Your task to perform on an android device: see tabs open on other devices in the chrome app Image 0: 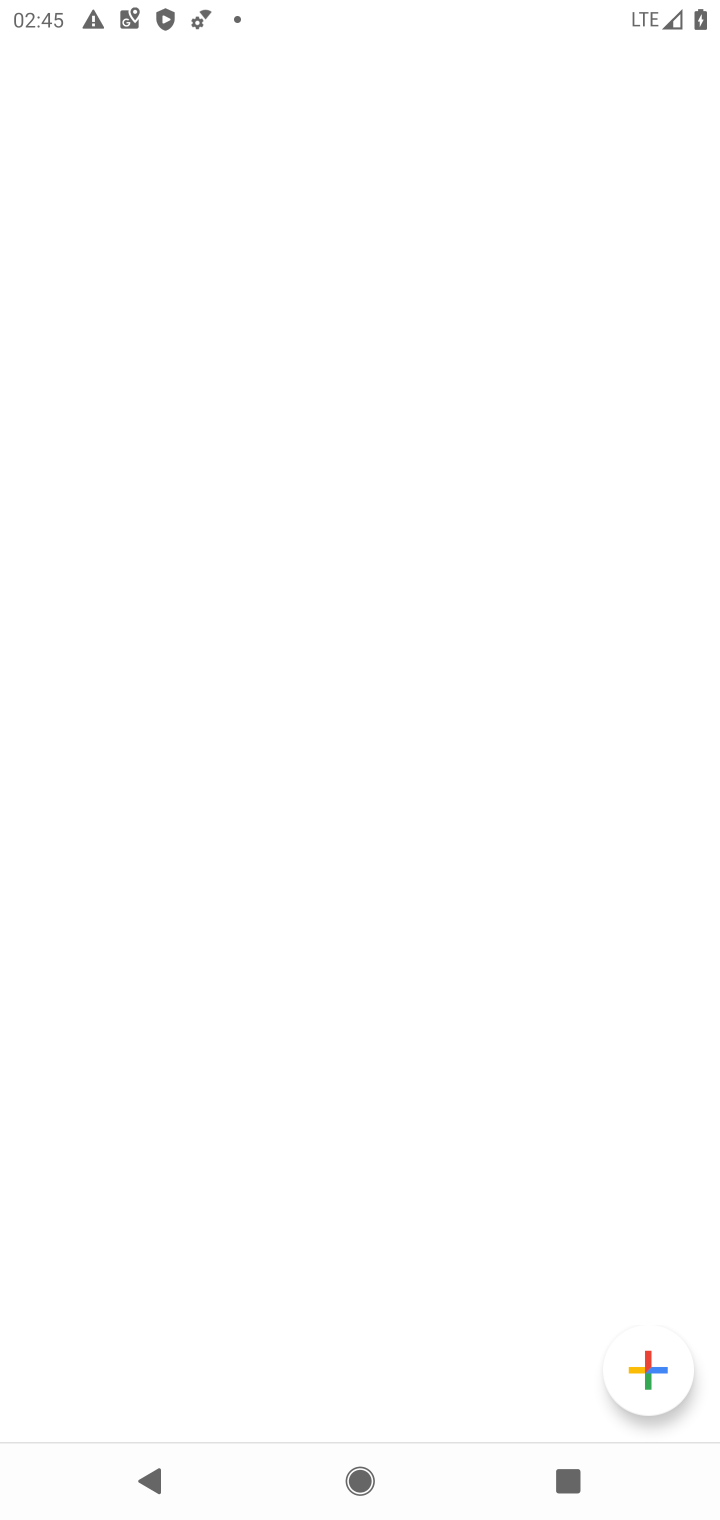
Step 0: press home button
Your task to perform on an android device: see tabs open on other devices in the chrome app Image 1: 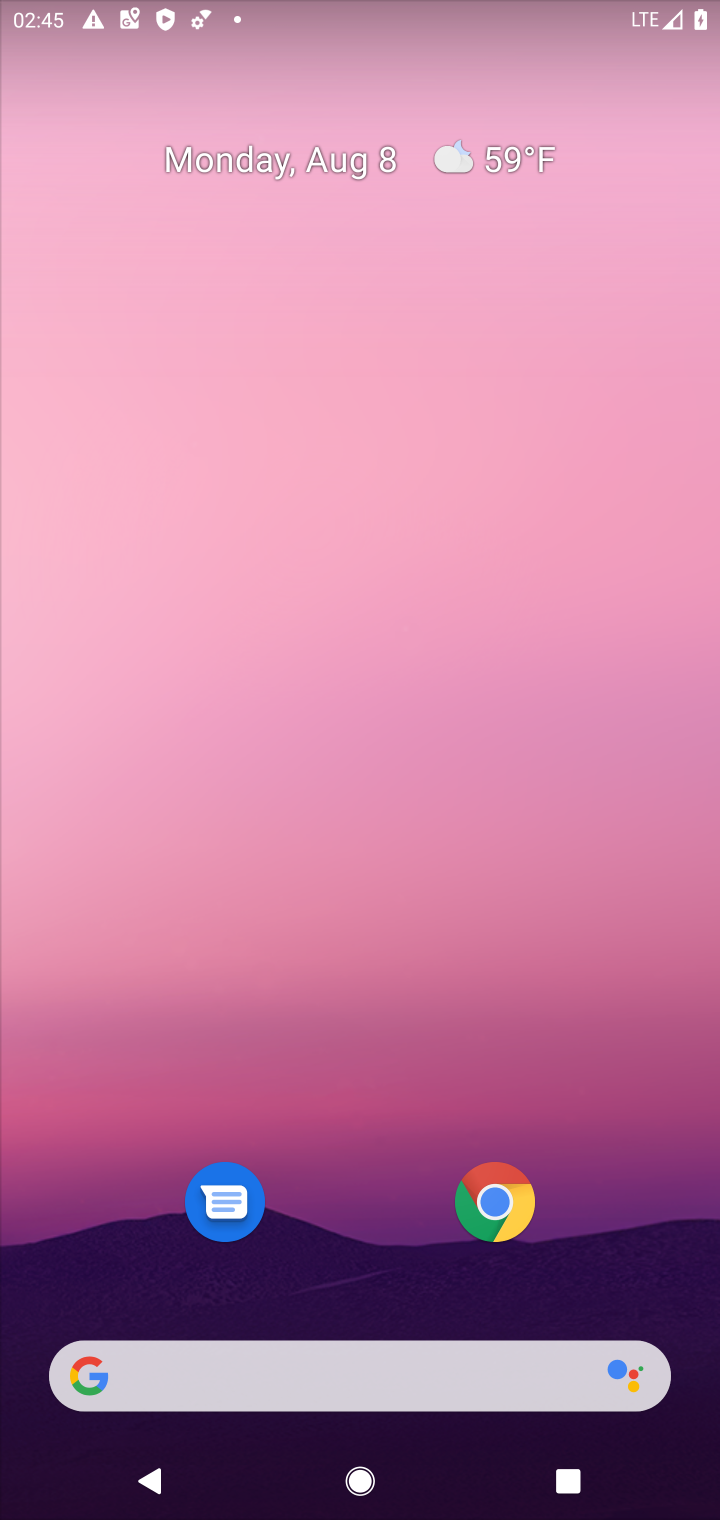
Step 1: click (505, 1197)
Your task to perform on an android device: see tabs open on other devices in the chrome app Image 2: 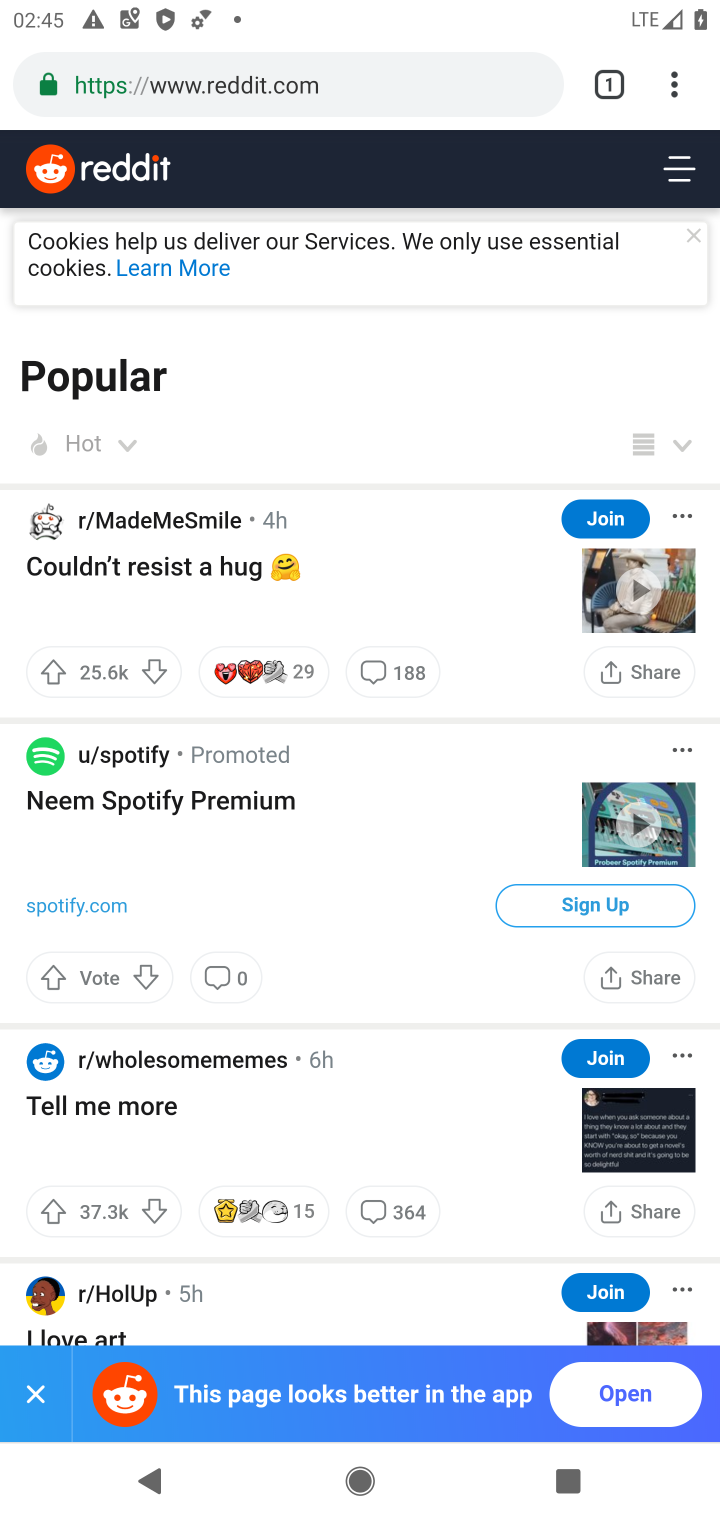
Step 2: click (676, 84)
Your task to perform on an android device: see tabs open on other devices in the chrome app Image 3: 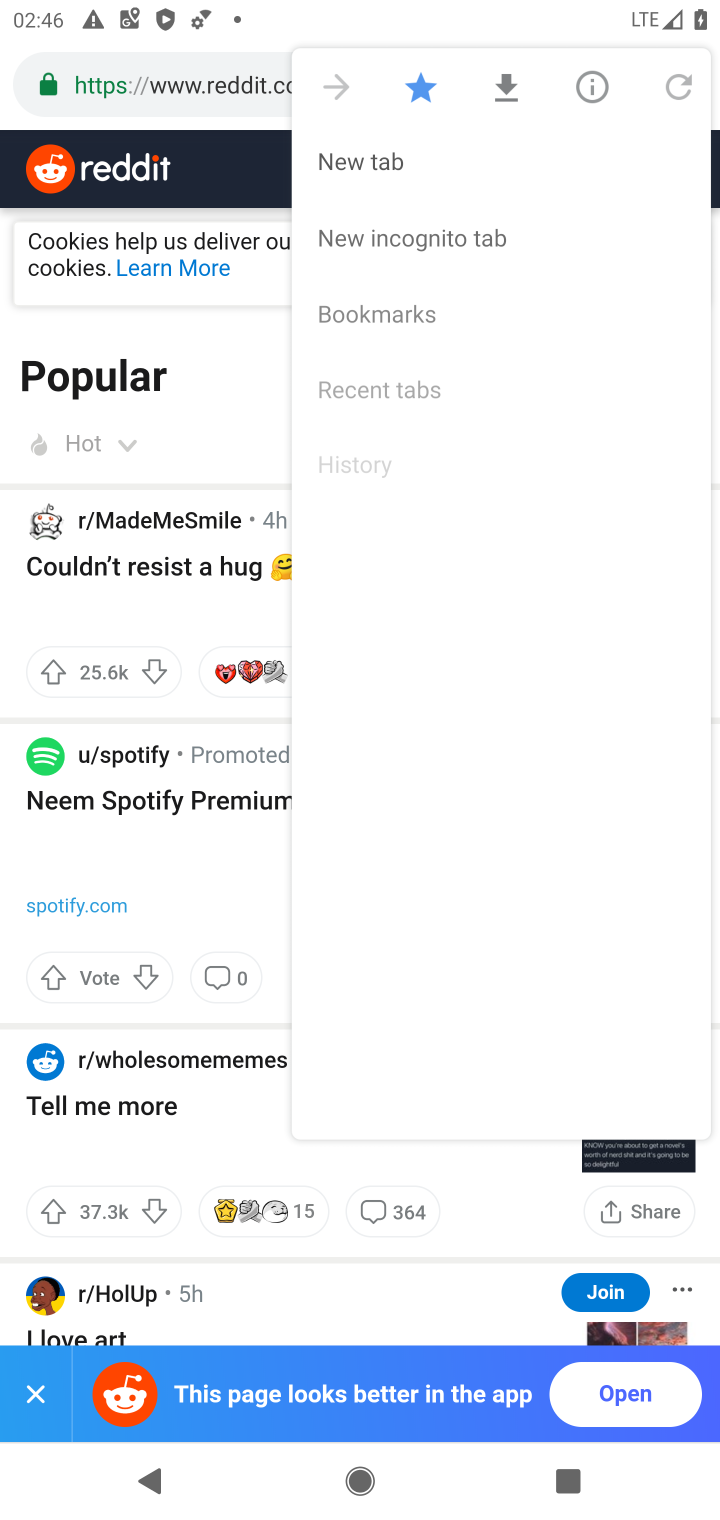
Step 3: click (676, 84)
Your task to perform on an android device: see tabs open on other devices in the chrome app Image 4: 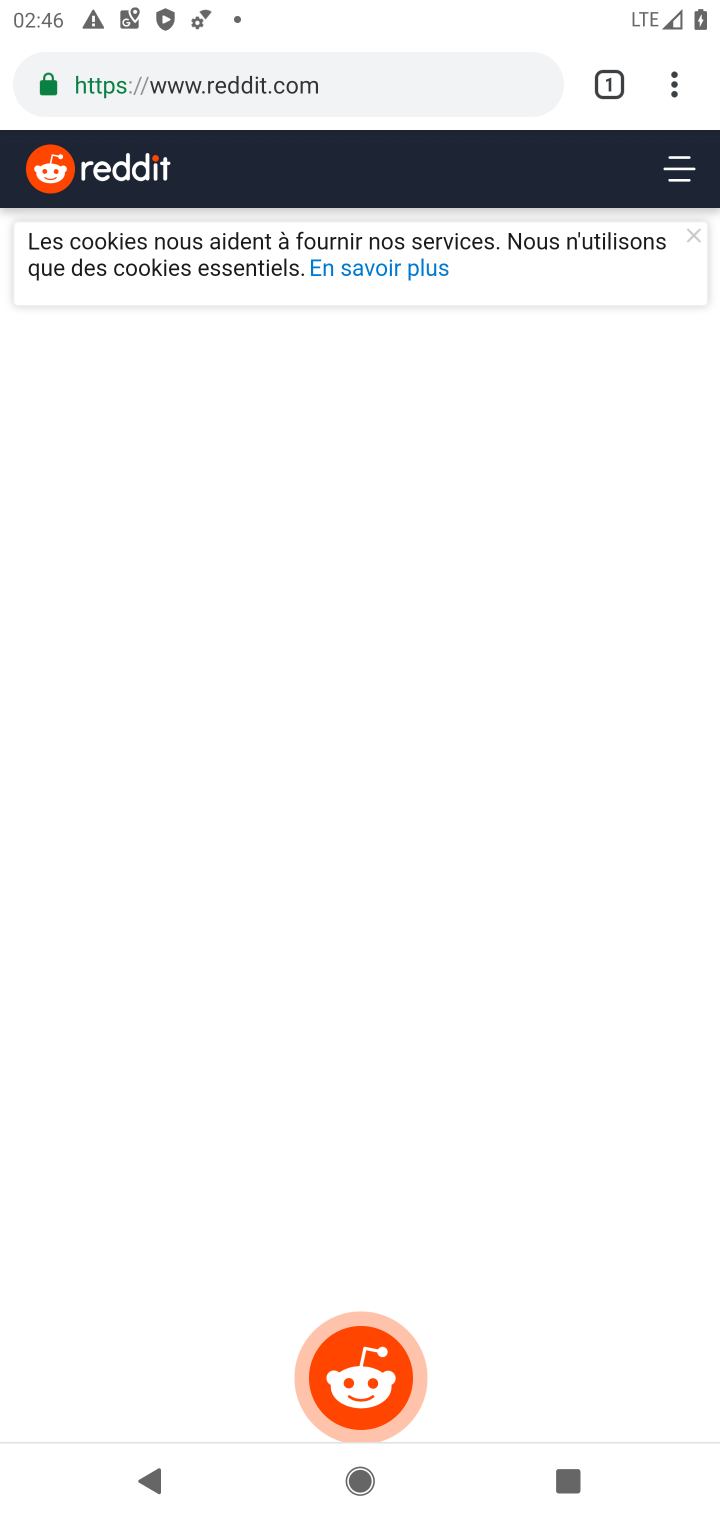
Step 4: click (677, 95)
Your task to perform on an android device: see tabs open on other devices in the chrome app Image 5: 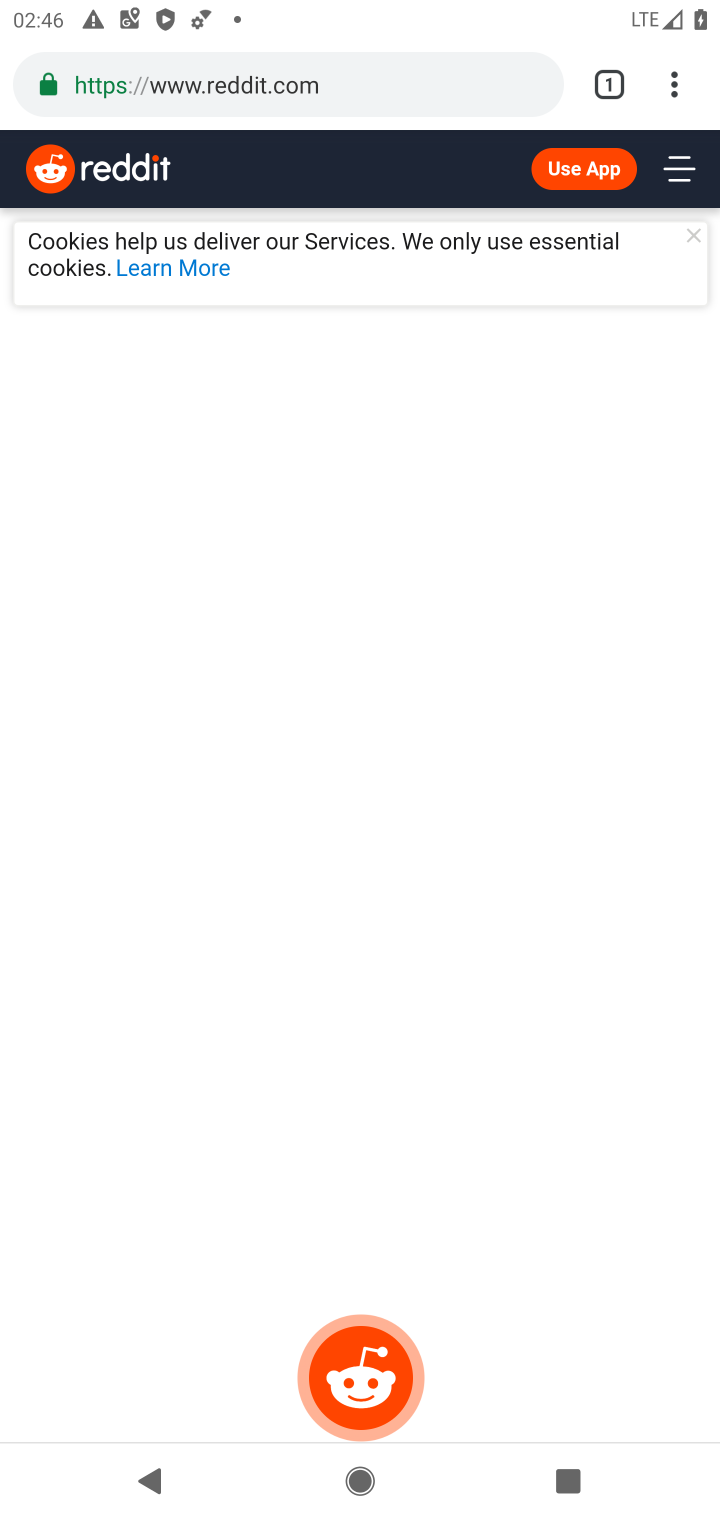
Step 5: click (672, 89)
Your task to perform on an android device: see tabs open on other devices in the chrome app Image 6: 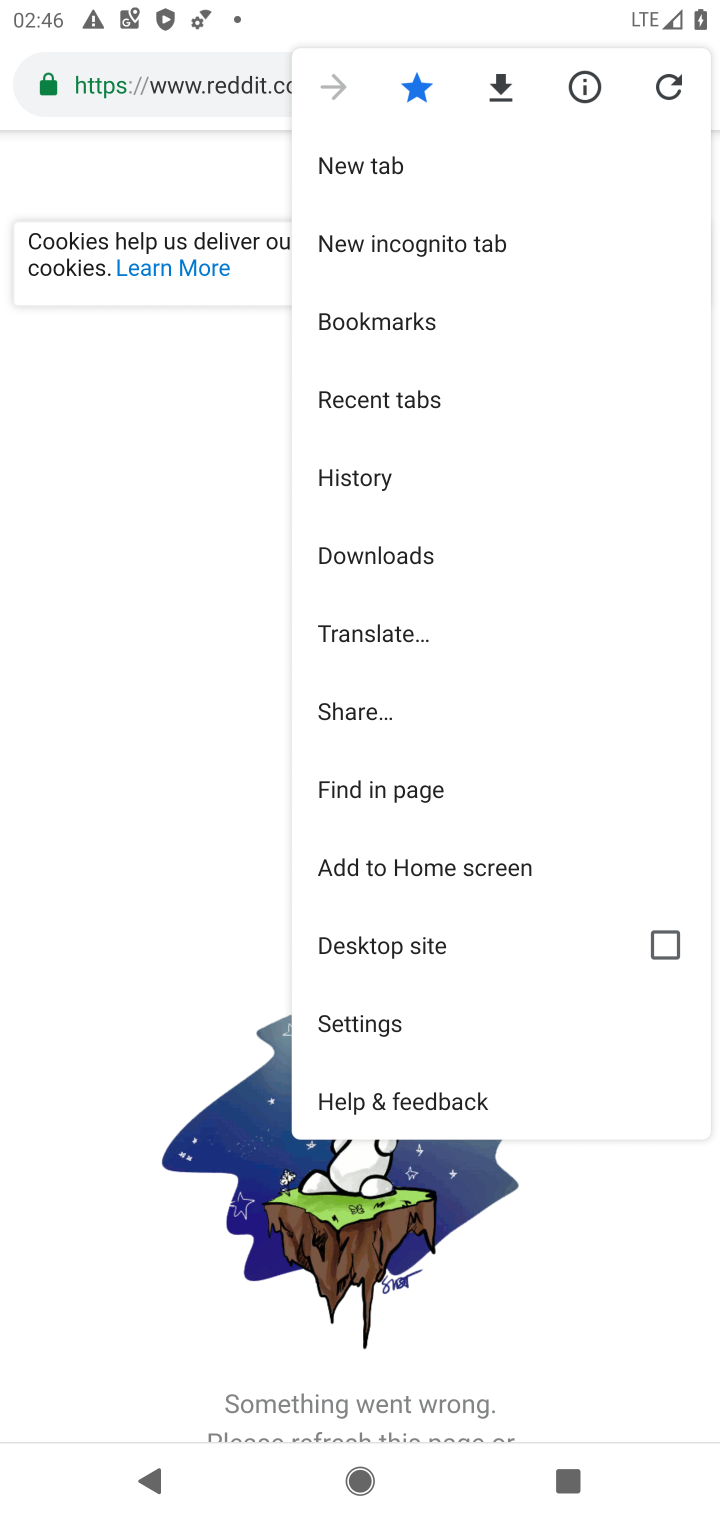
Step 6: click (376, 400)
Your task to perform on an android device: see tabs open on other devices in the chrome app Image 7: 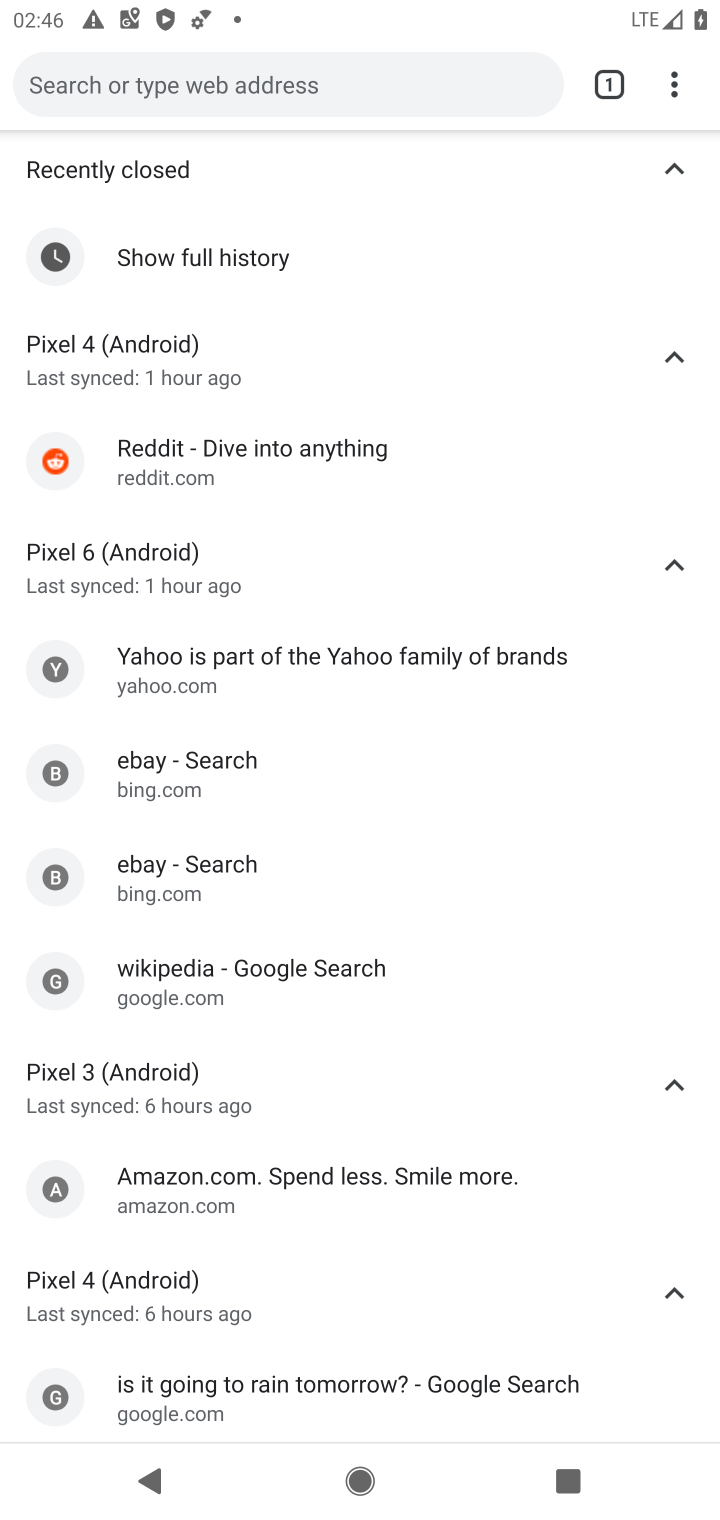
Step 7: task complete